Your task to perform on an android device: toggle show notifications on the lock screen Image 0: 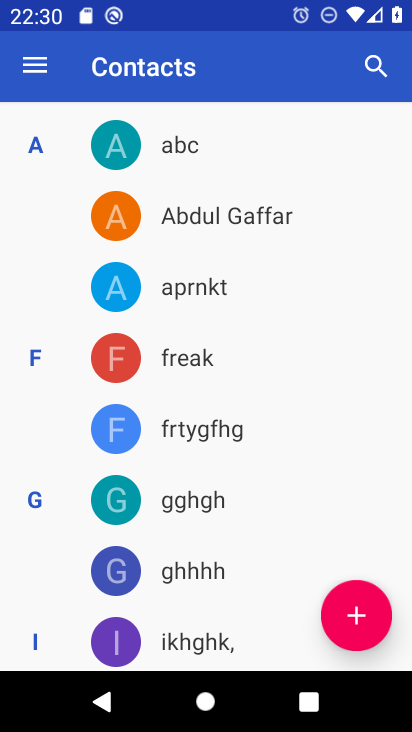
Step 0: press home button
Your task to perform on an android device: toggle show notifications on the lock screen Image 1: 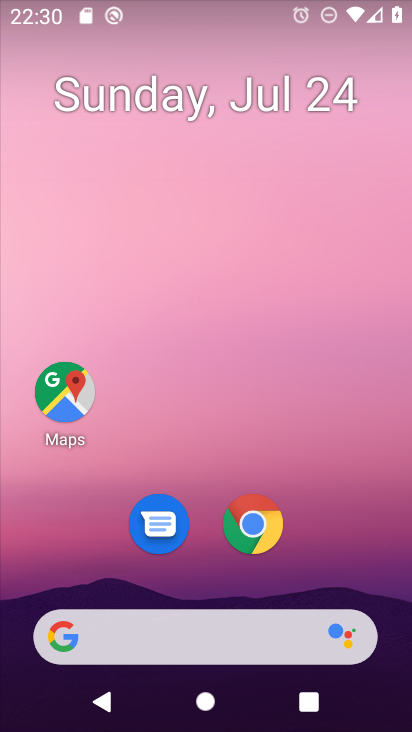
Step 1: drag from (182, 605) to (274, 63)
Your task to perform on an android device: toggle show notifications on the lock screen Image 2: 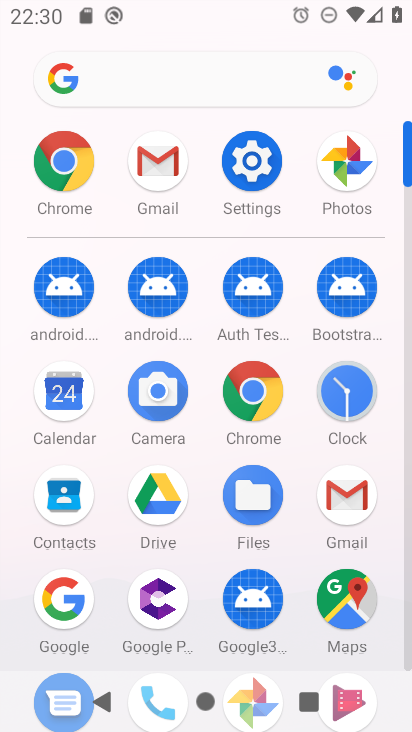
Step 2: click (248, 167)
Your task to perform on an android device: toggle show notifications on the lock screen Image 3: 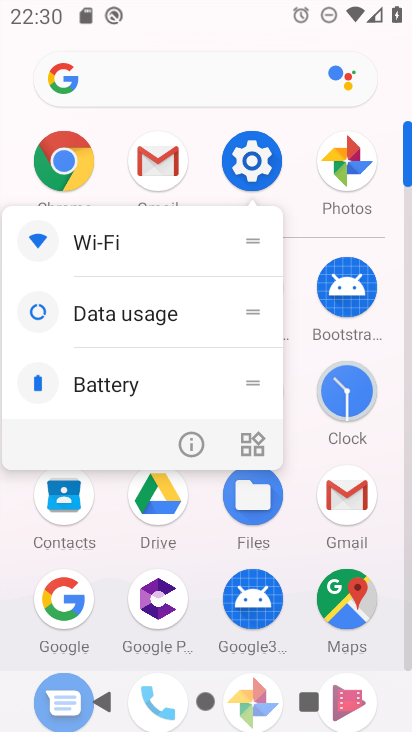
Step 3: click (253, 163)
Your task to perform on an android device: toggle show notifications on the lock screen Image 4: 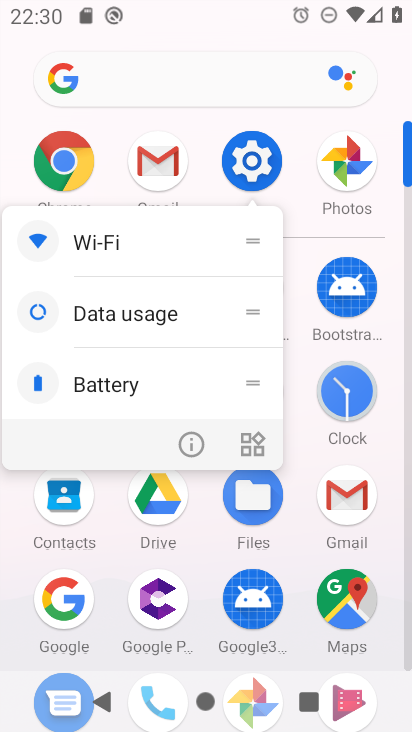
Step 4: click (253, 163)
Your task to perform on an android device: toggle show notifications on the lock screen Image 5: 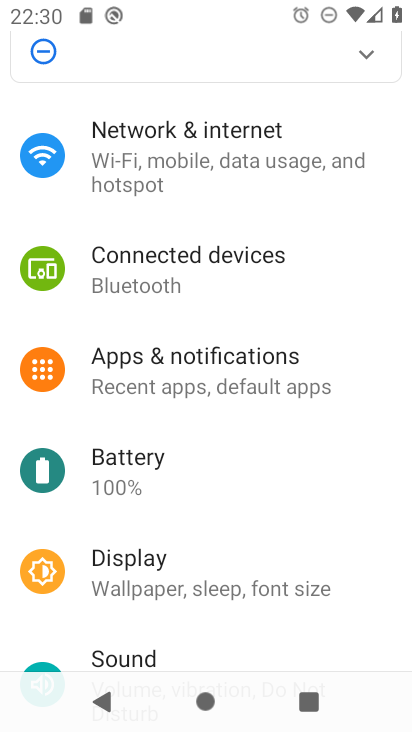
Step 5: click (177, 364)
Your task to perform on an android device: toggle show notifications on the lock screen Image 6: 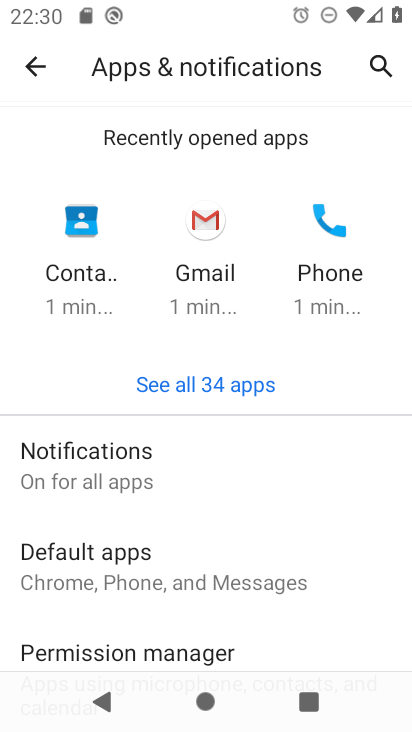
Step 6: click (118, 467)
Your task to perform on an android device: toggle show notifications on the lock screen Image 7: 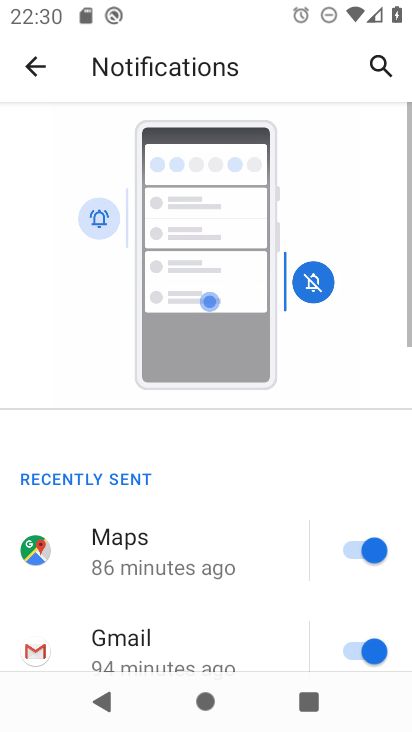
Step 7: drag from (243, 635) to (355, 40)
Your task to perform on an android device: toggle show notifications on the lock screen Image 8: 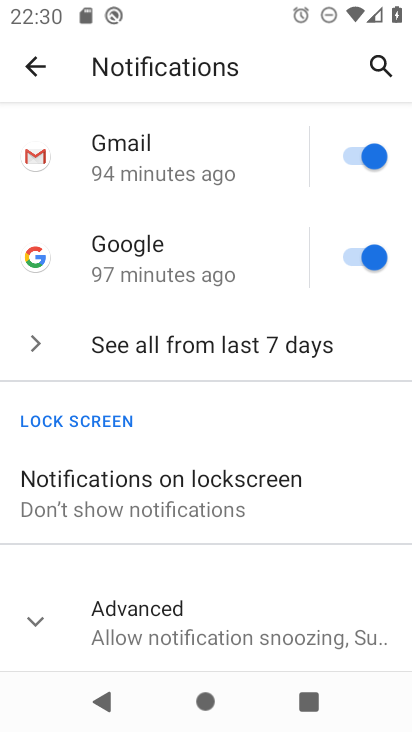
Step 8: click (192, 494)
Your task to perform on an android device: toggle show notifications on the lock screen Image 9: 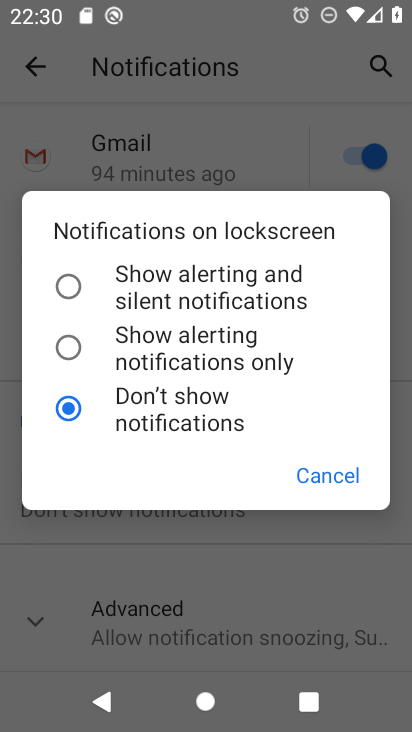
Step 9: click (66, 287)
Your task to perform on an android device: toggle show notifications on the lock screen Image 10: 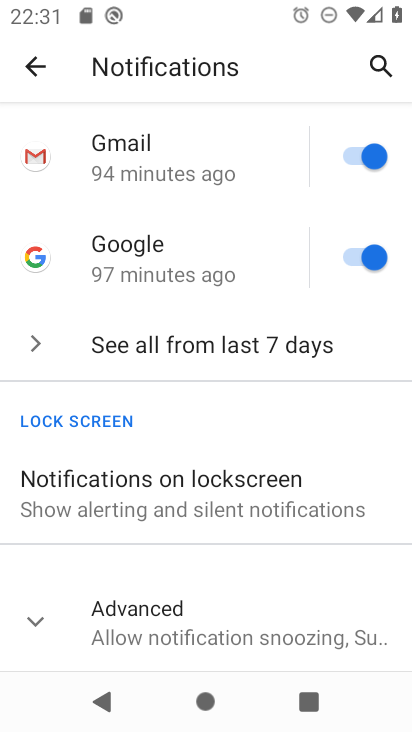
Step 10: task complete